Your task to perform on an android device: set the timer Image 0: 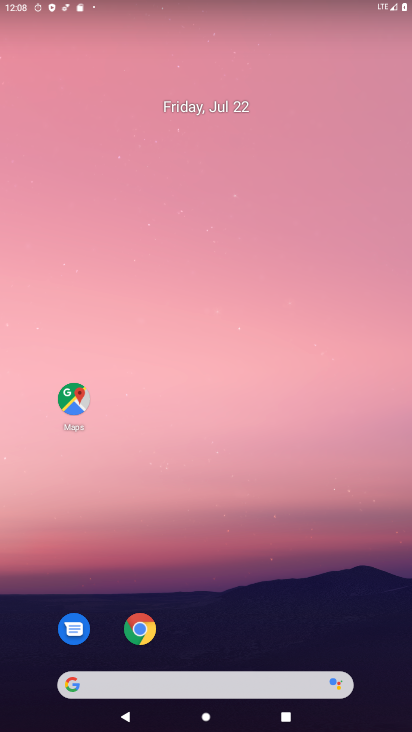
Step 0: press home button
Your task to perform on an android device: set the timer Image 1: 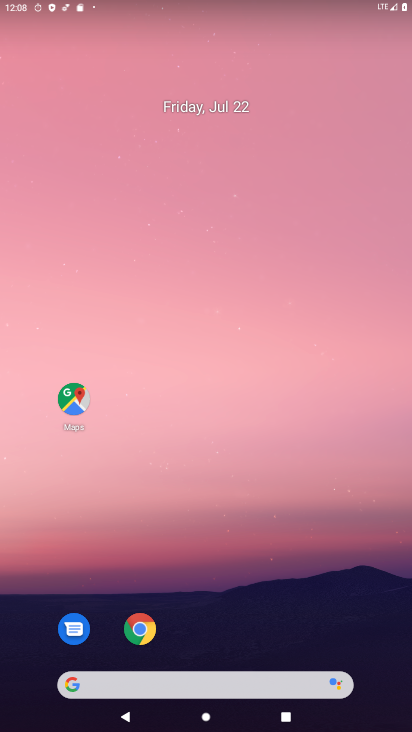
Step 1: drag from (332, 634) to (370, 45)
Your task to perform on an android device: set the timer Image 2: 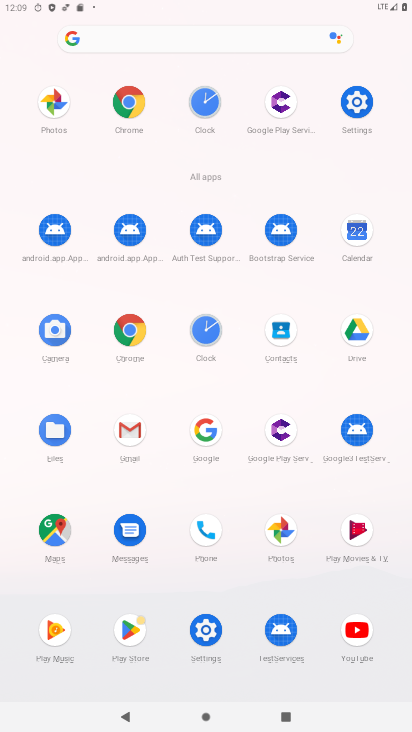
Step 2: click (206, 331)
Your task to perform on an android device: set the timer Image 3: 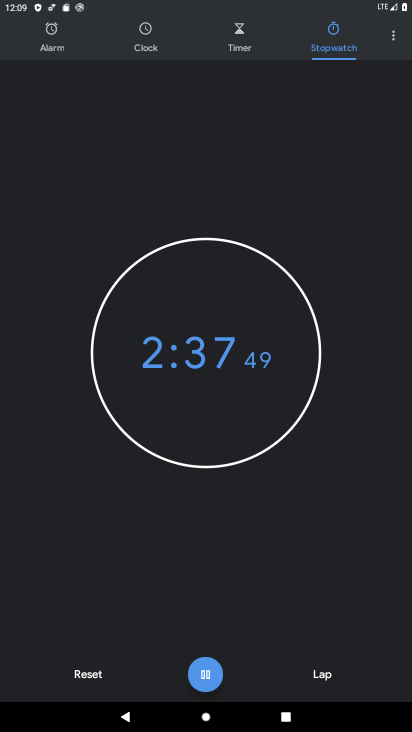
Step 3: click (236, 38)
Your task to perform on an android device: set the timer Image 4: 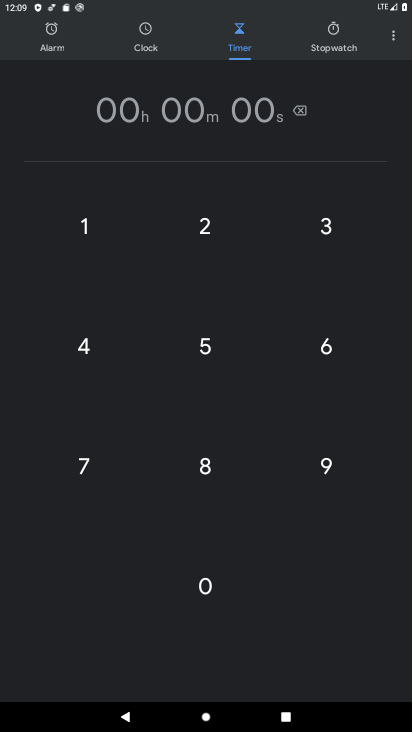
Step 4: click (232, 336)
Your task to perform on an android device: set the timer Image 5: 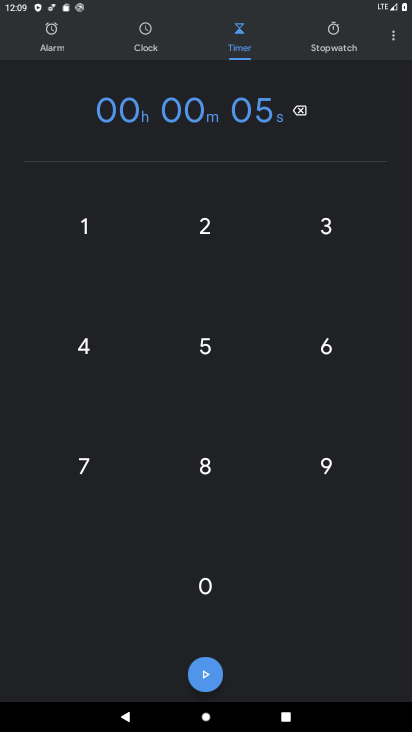
Step 5: task complete